Your task to perform on an android device: How do I get to the nearest Best Buy? Image 0: 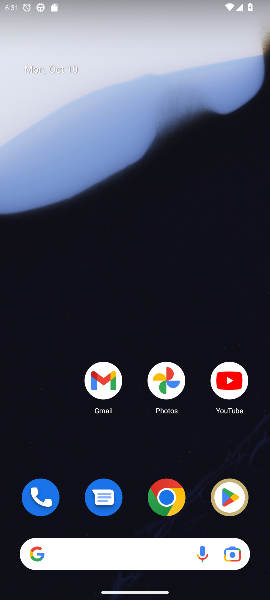
Step 0: drag from (124, 454) to (165, 164)
Your task to perform on an android device: How do I get to the nearest Best Buy? Image 1: 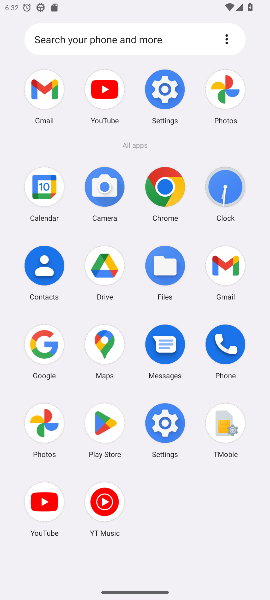
Step 1: click (44, 340)
Your task to perform on an android device: How do I get to the nearest Best Buy? Image 2: 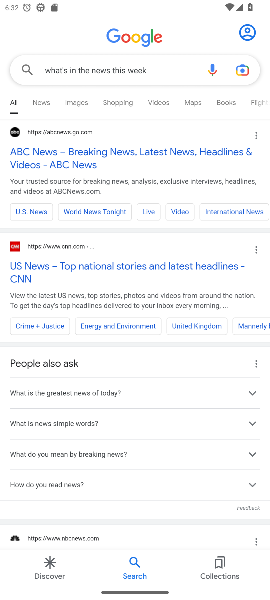
Step 2: click (160, 68)
Your task to perform on an android device: How do I get to the nearest Best Buy? Image 3: 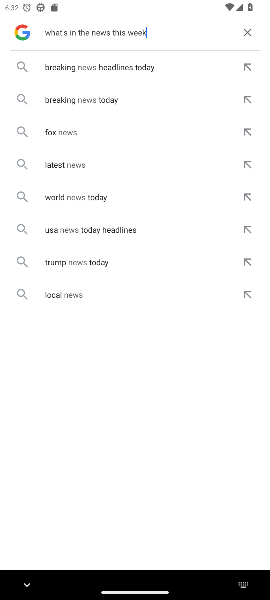
Step 3: click (243, 37)
Your task to perform on an android device: How do I get to the nearest Best Buy? Image 4: 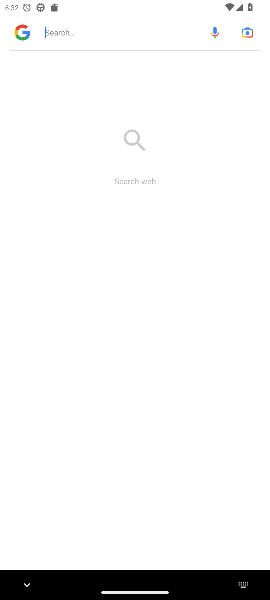
Step 4: click (147, 25)
Your task to perform on an android device: How do I get to the nearest Best Buy? Image 5: 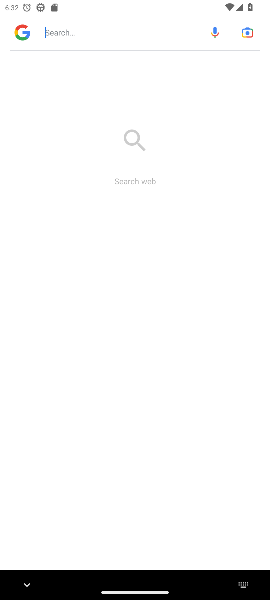
Step 5: click (147, 25)
Your task to perform on an android device: How do I get to the nearest Best Buy? Image 6: 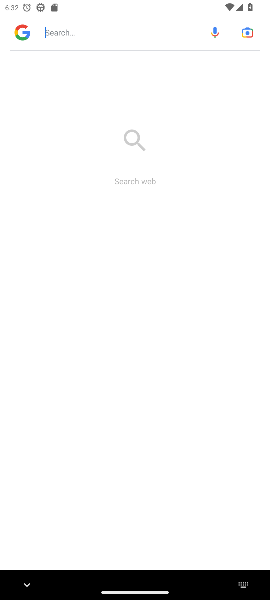
Step 6: type "How do I get to the nearest Best Buy? "
Your task to perform on an android device: How do I get to the nearest Best Buy? Image 7: 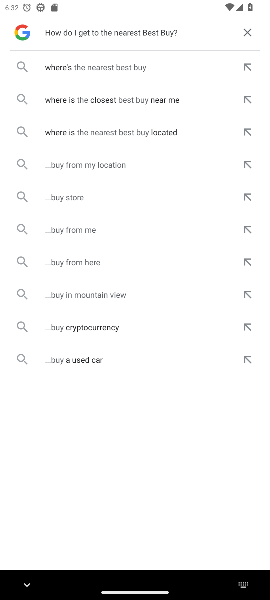
Step 7: click (97, 61)
Your task to perform on an android device: How do I get to the nearest Best Buy? Image 8: 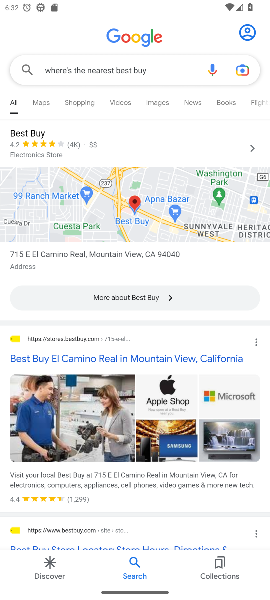
Step 8: drag from (92, 507) to (111, 290)
Your task to perform on an android device: How do I get to the nearest Best Buy? Image 9: 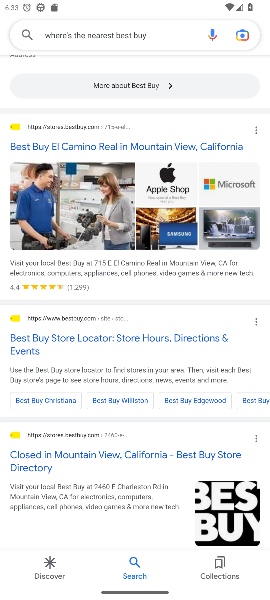
Step 9: click (62, 146)
Your task to perform on an android device: How do I get to the nearest Best Buy? Image 10: 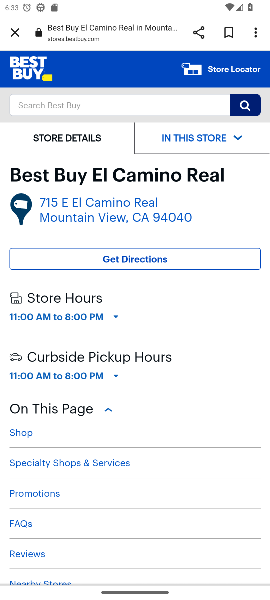
Step 10: task complete